Your task to perform on an android device: see tabs open on other devices in the chrome app Image 0: 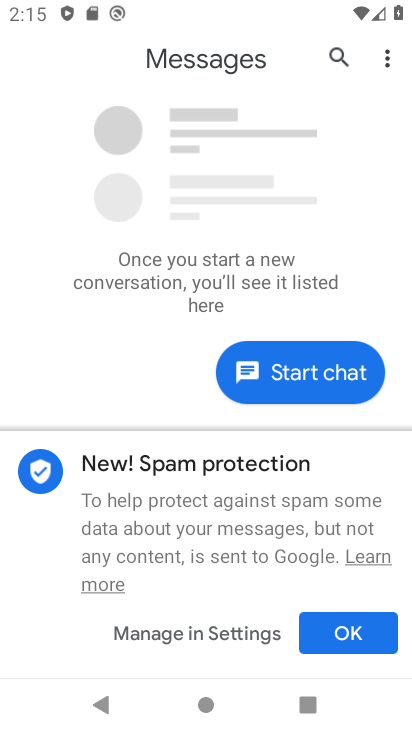
Step 0: press home button
Your task to perform on an android device: see tabs open on other devices in the chrome app Image 1: 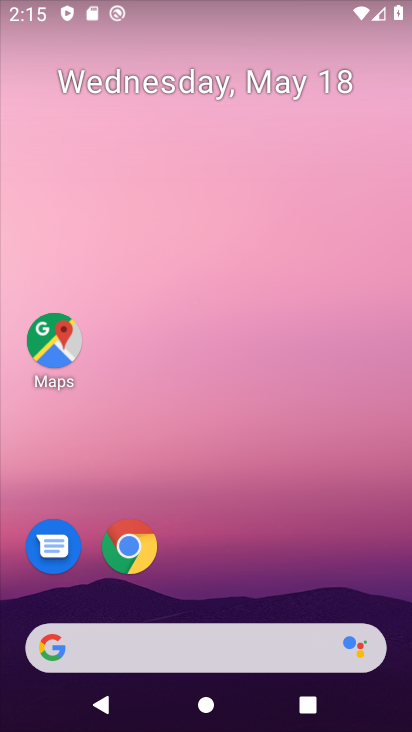
Step 1: click (130, 549)
Your task to perform on an android device: see tabs open on other devices in the chrome app Image 2: 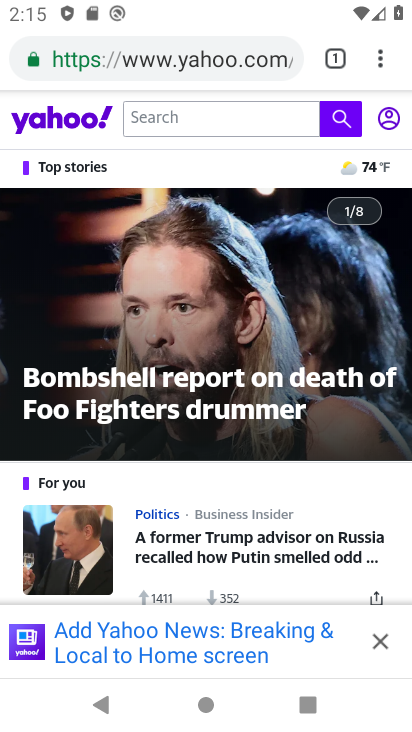
Step 2: click (380, 63)
Your task to perform on an android device: see tabs open on other devices in the chrome app Image 3: 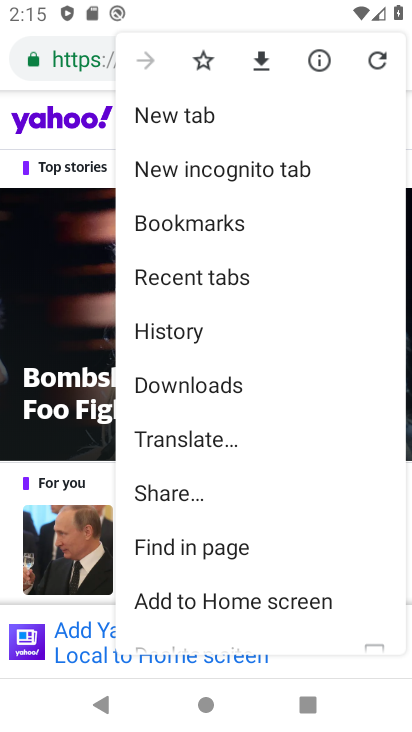
Step 3: click (203, 274)
Your task to perform on an android device: see tabs open on other devices in the chrome app Image 4: 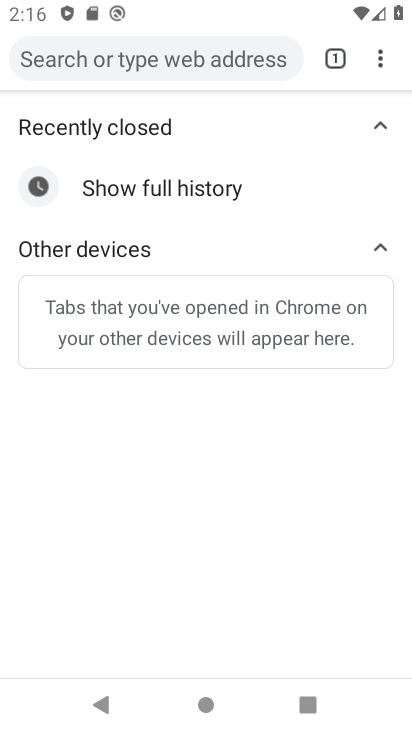
Step 4: task complete